Your task to perform on an android device: change your default location settings in chrome Image 0: 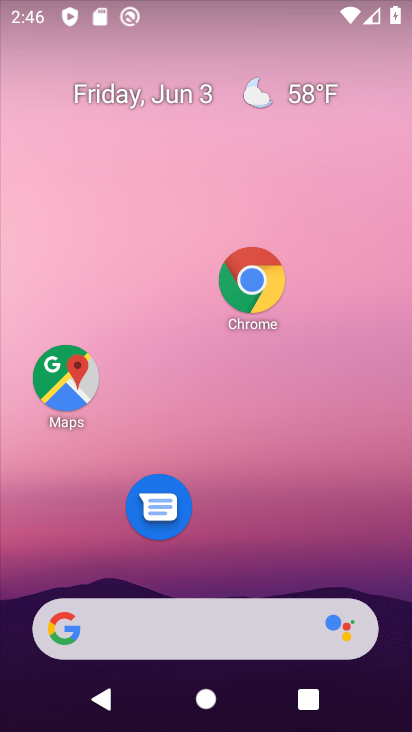
Step 0: drag from (250, 480) to (286, 137)
Your task to perform on an android device: change your default location settings in chrome Image 1: 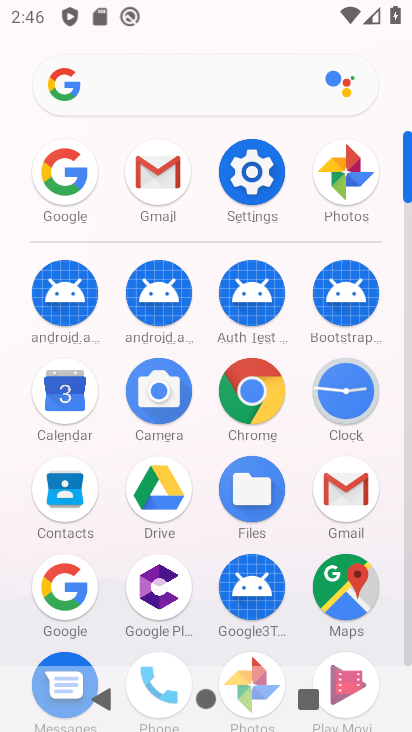
Step 1: click (245, 387)
Your task to perform on an android device: change your default location settings in chrome Image 2: 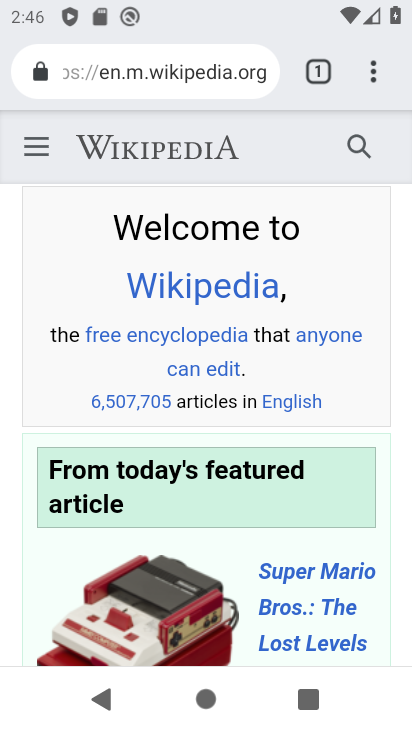
Step 2: click (371, 62)
Your task to perform on an android device: change your default location settings in chrome Image 3: 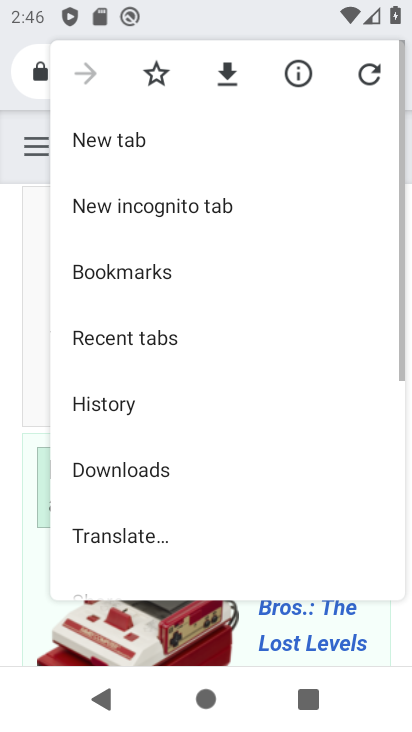
Step 3: drag from (172, 511) to (208, 159)
Your task to perform on an android device: change your default location settings in chrome Image 4: 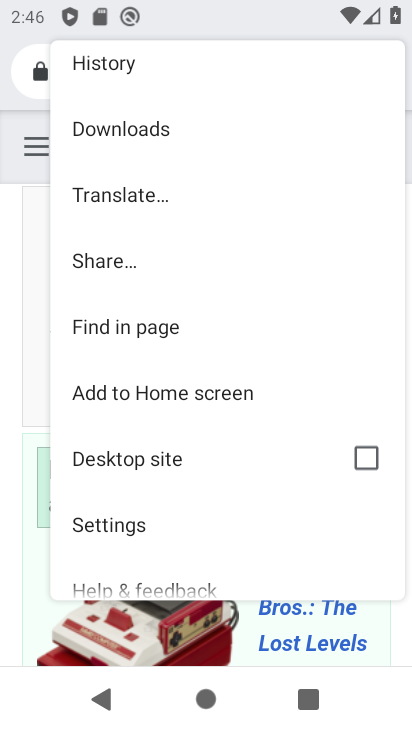
Step 4: click (154, 515)
Your task to perform on an android device: change your default location settings in chrome Image 5: 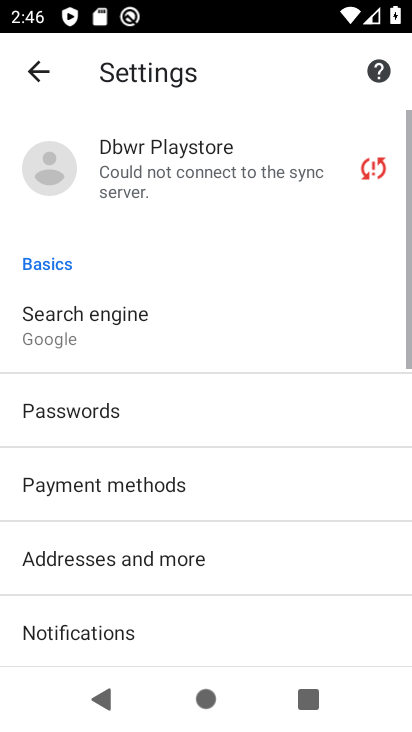
Step 5: drag from (189, 611) to (237, 252)
Your task to perform on an android device: change your default location settings in chrome Image 6: 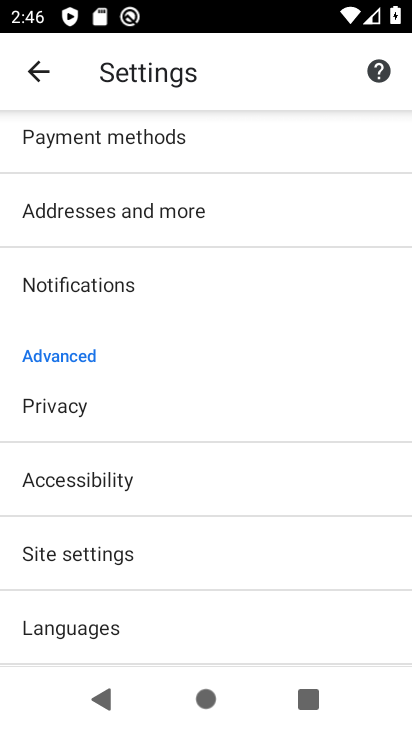
Step 6: click (76, 566)
Your task to perform on an android device: change your default location settings in chrome Image 7: 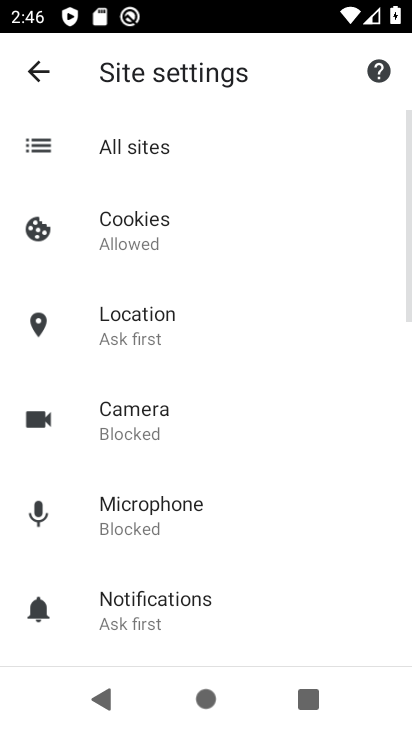
Step 7: click (192, 311)
Your task to perform on an android device: change your default location settings in chrome Image 8: 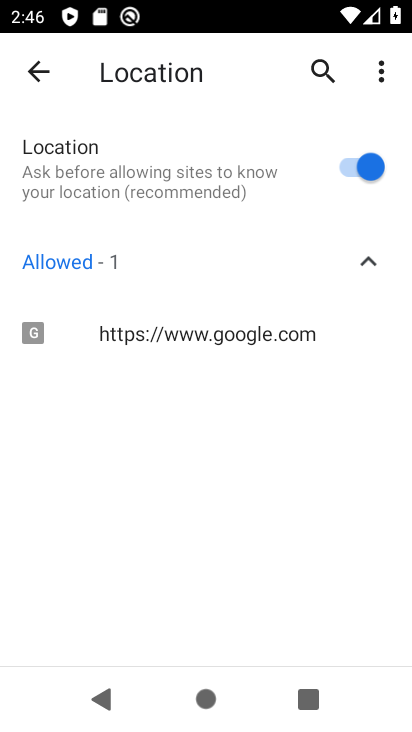
Step 8: click (367, 170)
Your task to perform on an android device: change your default location settings in chrome Image 9: 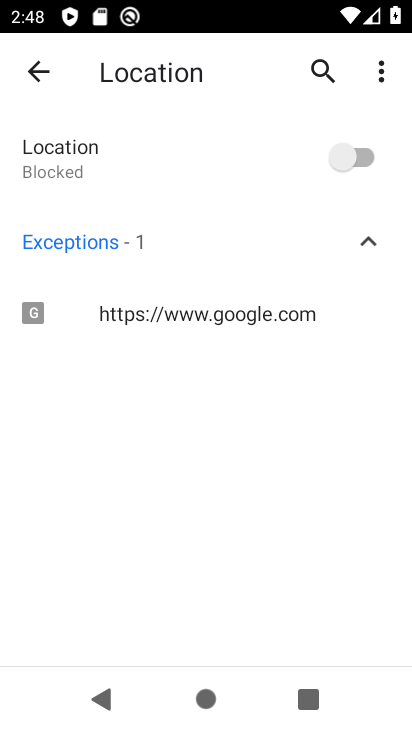
Step 9: task complete